Your task to perform on an android device: turn notification dots off Image 0: 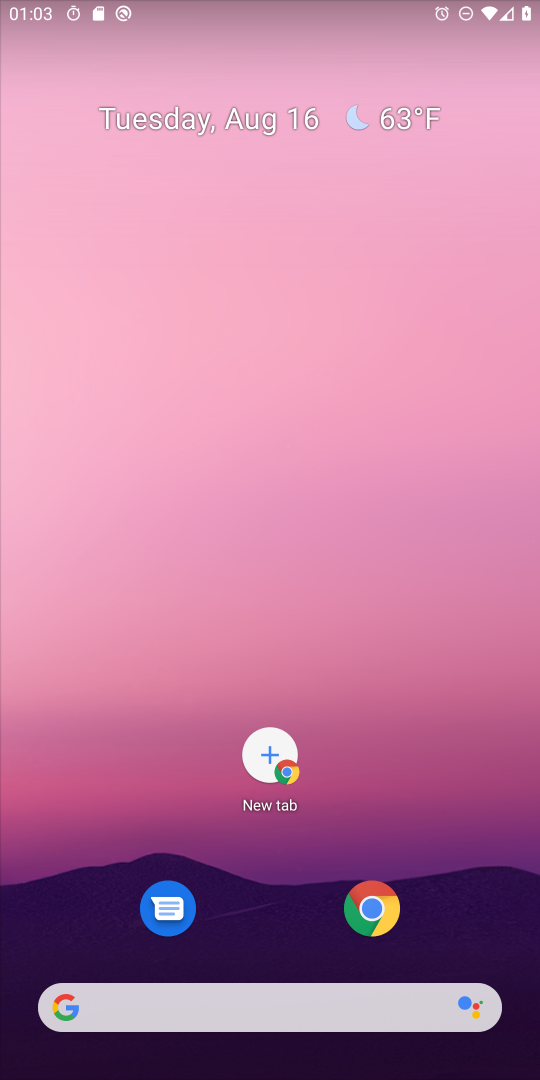
Step 0: drag from (225, 947) to (181, 0)
Your task to perform on an android device: turn notification dots off Image 1: 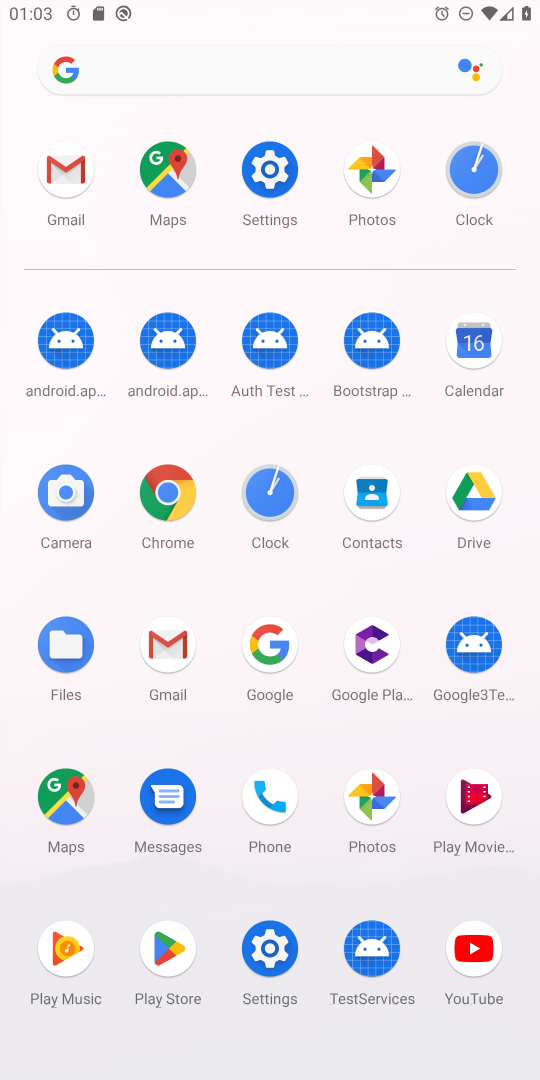
Step 1: click (278, 168)
Your task to perform on an android device: turn notification dots off Image 2: 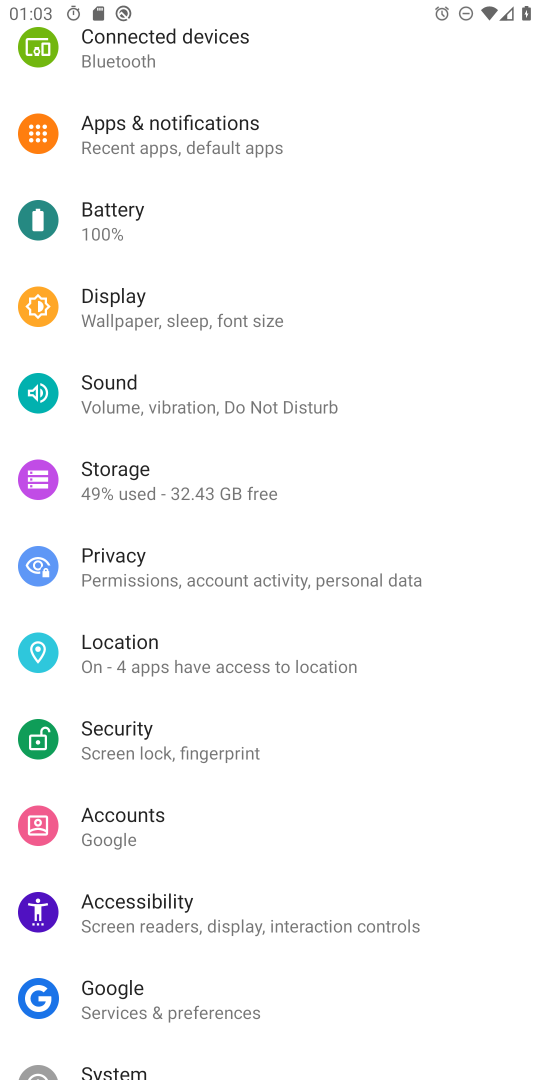
Step 2: click (239, 180)
Your task to perform on an android device: turn notification dots off Image 3: 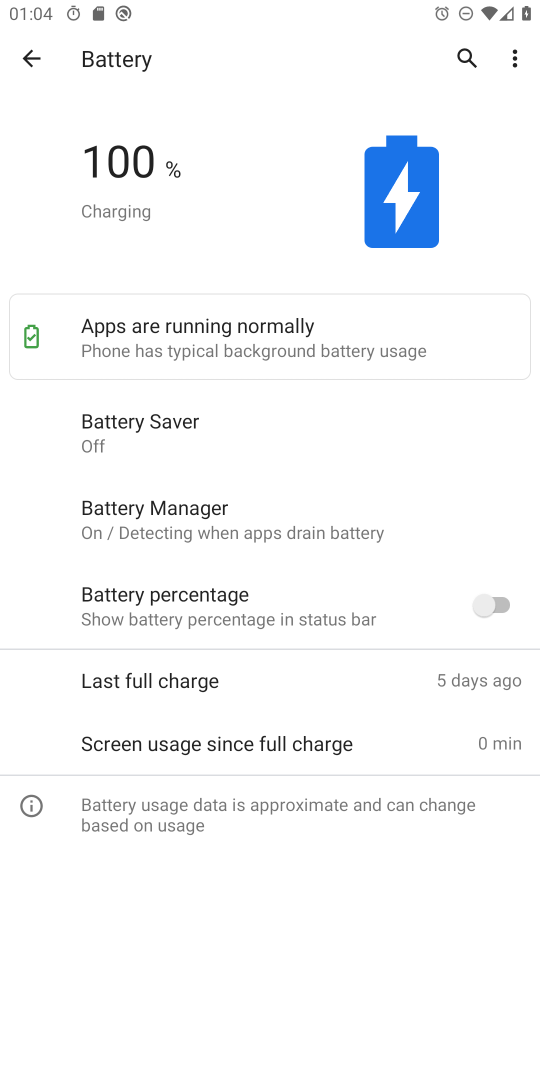
Step 3: click (33, 71)
Your task to perform on an android device: turn notification dots off Image 4: 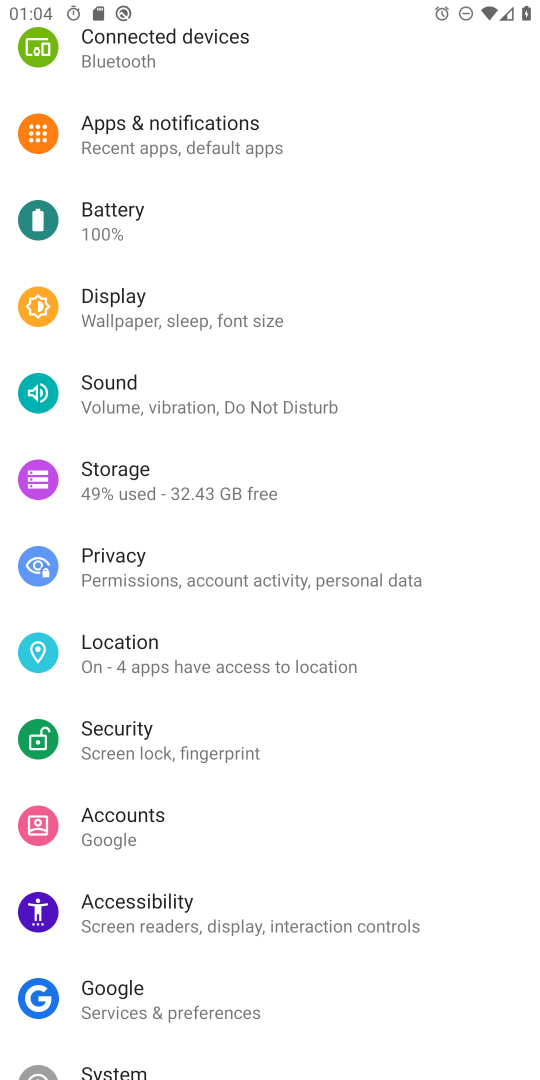
Step 4: click (166, 152)
Your task to perform on an android device: turn notification dots off Image 5: 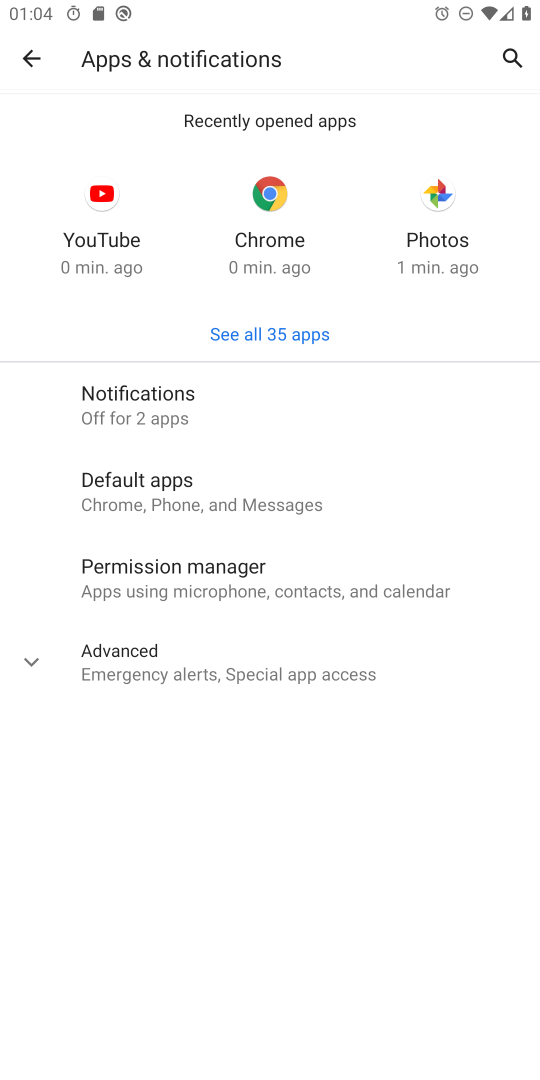
Step 5: click (166, 416)
Your task to perform on an android device: turn notification dots off Image 6: 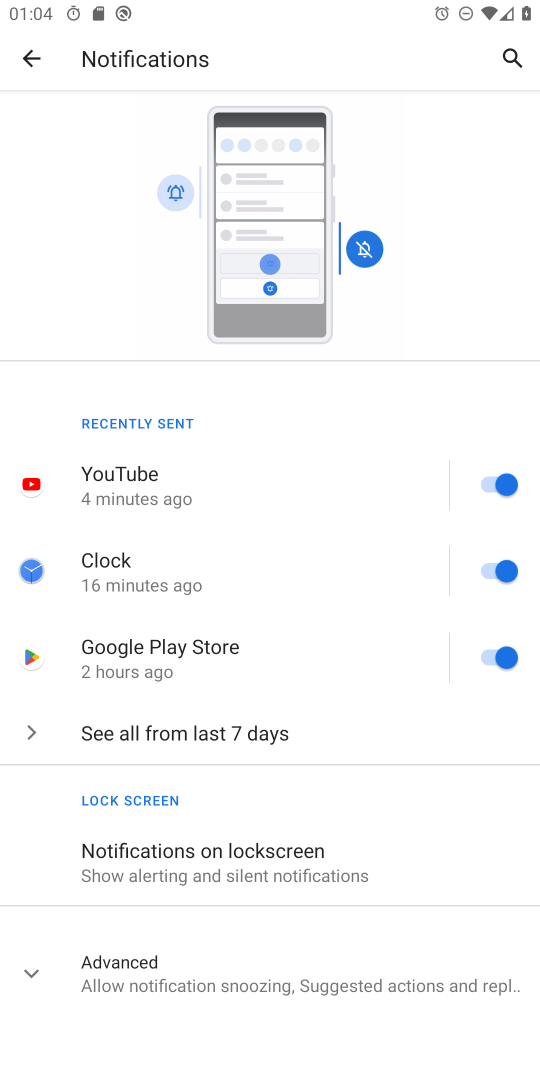
Step 6: drag from (371, 954) to (362, 123)
Your task to perform on an android device: turn notification dots off Image 7: 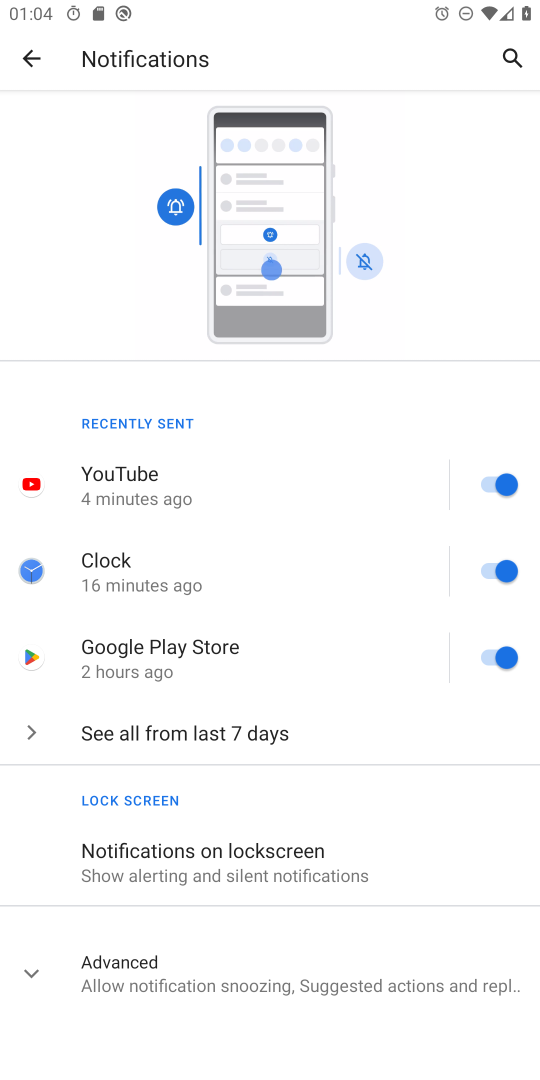
Step 7: click (298, 984)
Your task to perform on an android device: turn notification dots off Image 8: 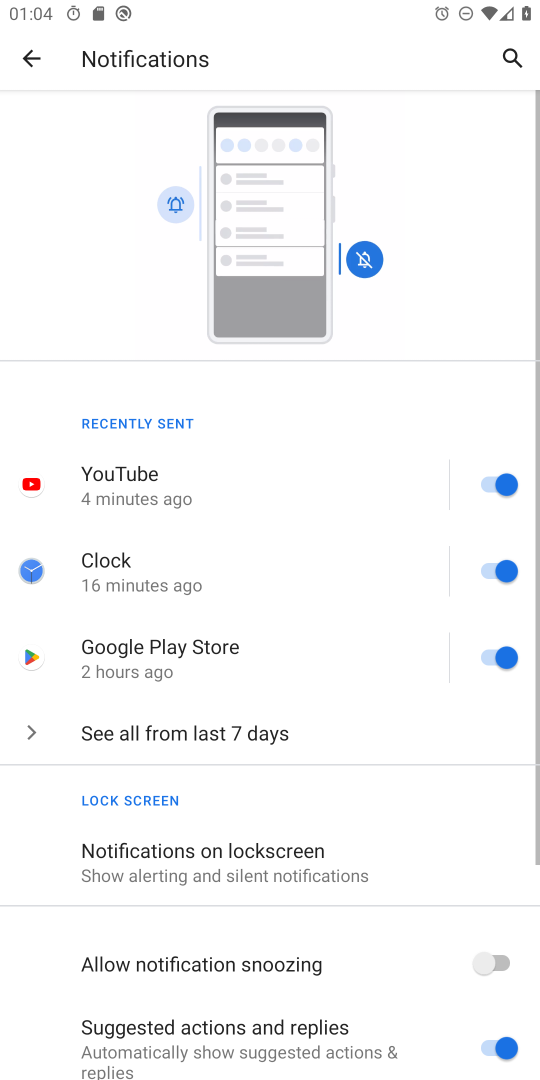
Step 8: drag from (298, 984) to (253, 429)
Your task to perform on an android device: turn notification dots off Image 9: 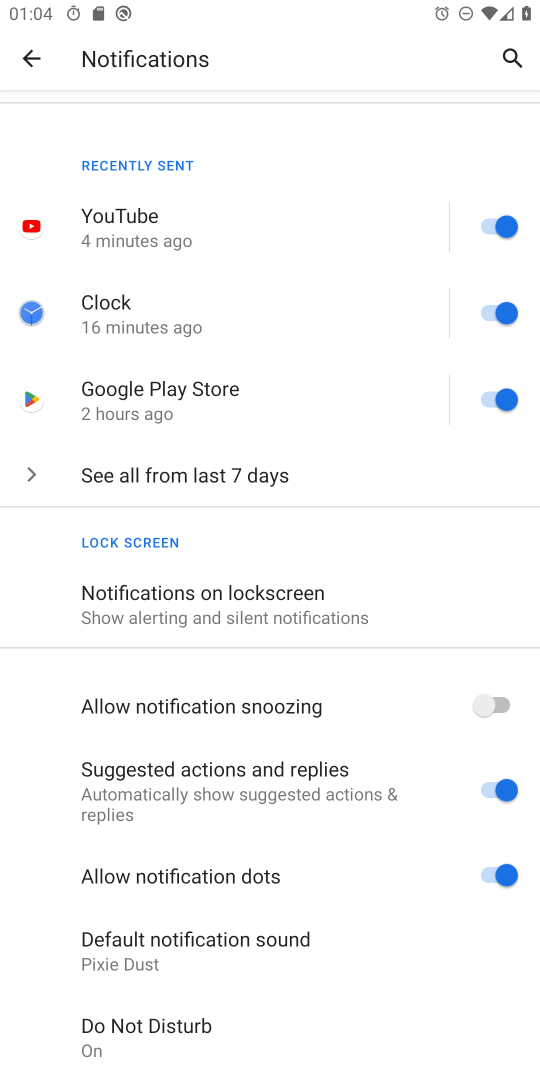
Step 9: click (502, 883)
Your task to perform on an android device: turn notification dots off Image 10: 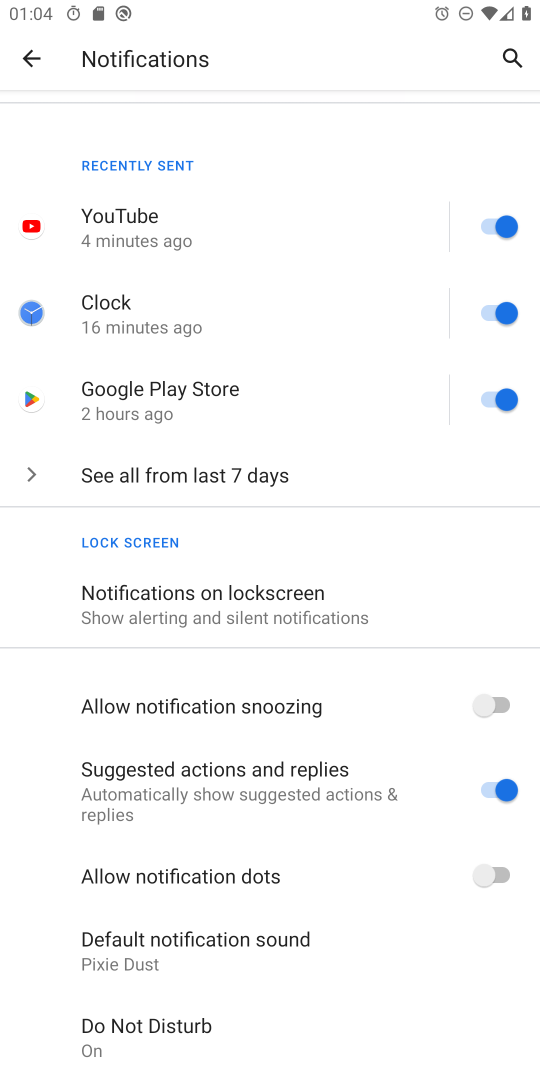
Step 10: task complete